Your task to perform on an android device: Toggle the flashlight Image 0: 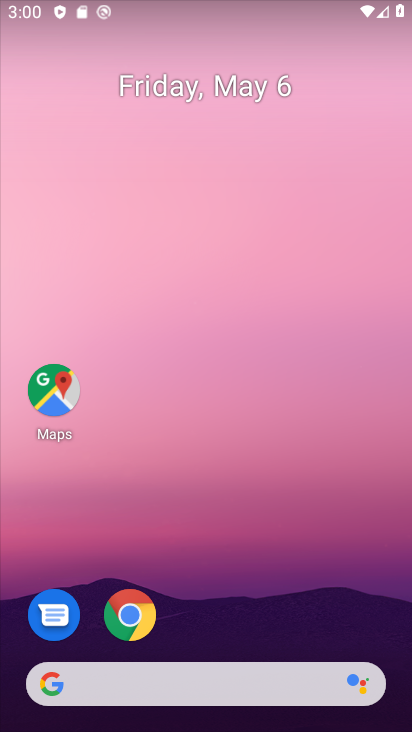
Step 0: drag from (277, 471) to (299, 184)
Your task to perform on an android device: Toggle the flashlight Image 1: 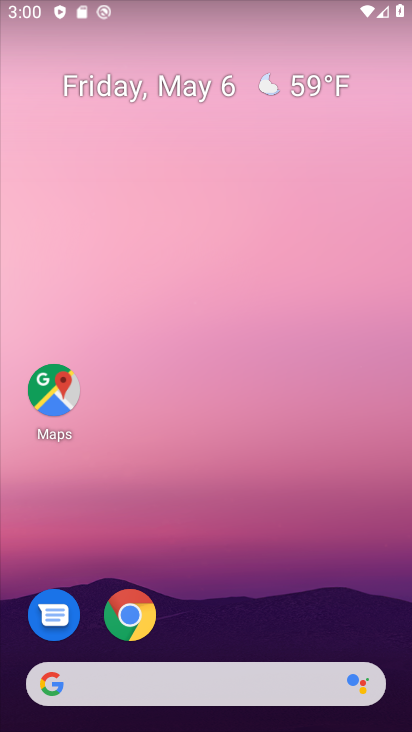
Step 1: drag from (256, 567) to (266, 218)
Your task to perform on an android device: Toggle the flashlight Image 2: 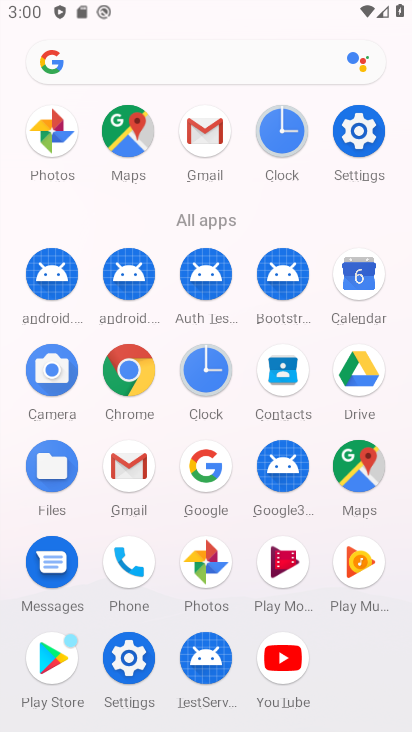
Step 2: click (352, 133)
Your task to perform on an android device: Toggle the flashlight Image 3: 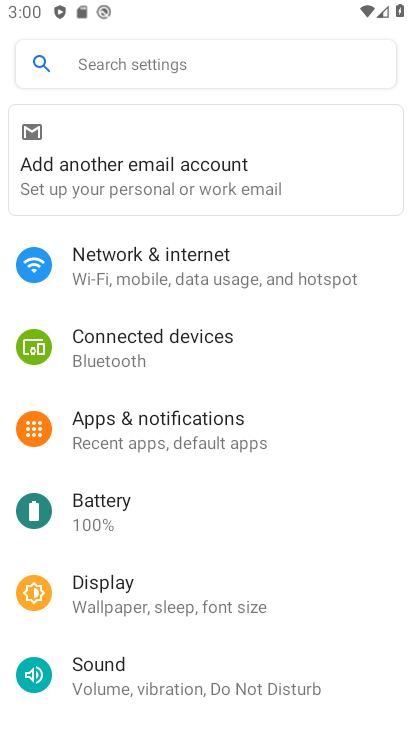
Step 3: task complete